Your task to perform on an android device: Open my contact list Image 0: 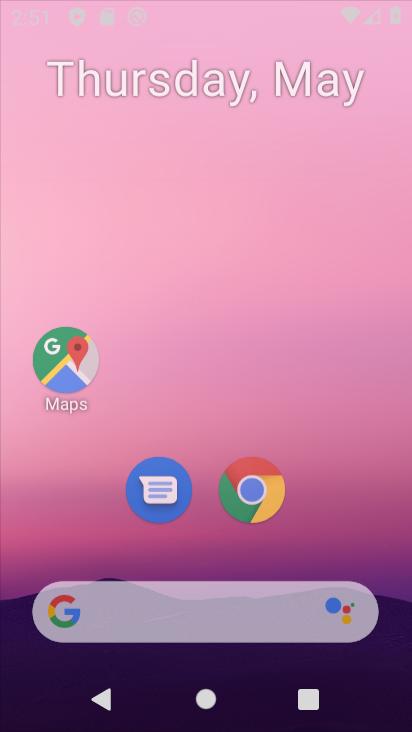
Step 0: press home button
Your task to perform on an android device: Open my contact list Image 1: 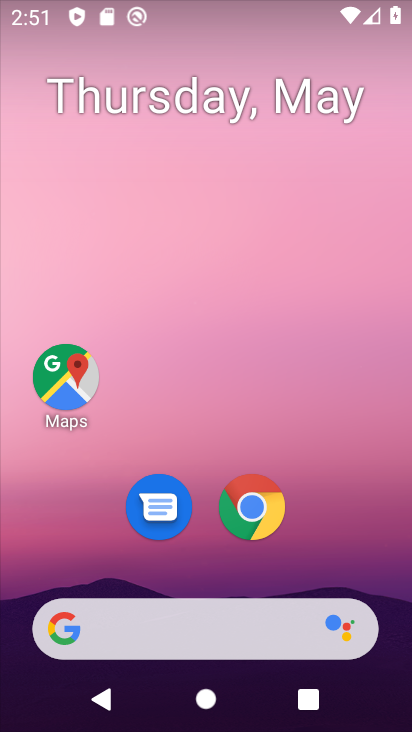
Step 1: drag from (372, 542) to (295, 52)
Your task to perform on an android device: Open my contact list Image 2: 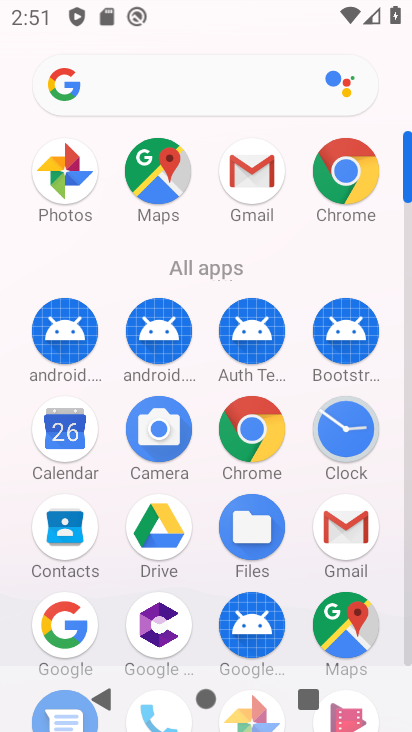
Step 2: click (53, 530)
Your task to perform on an android device: Open my contact list Image 3: 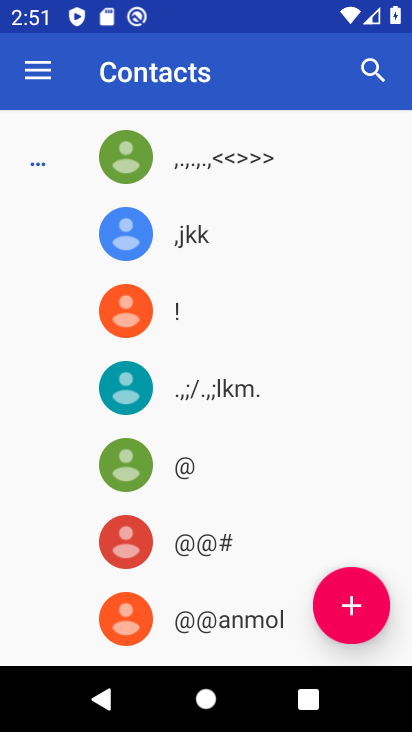
Step 3: task complete